Your task to perform on an android device: turn pop-ups on in chrome Image 0: 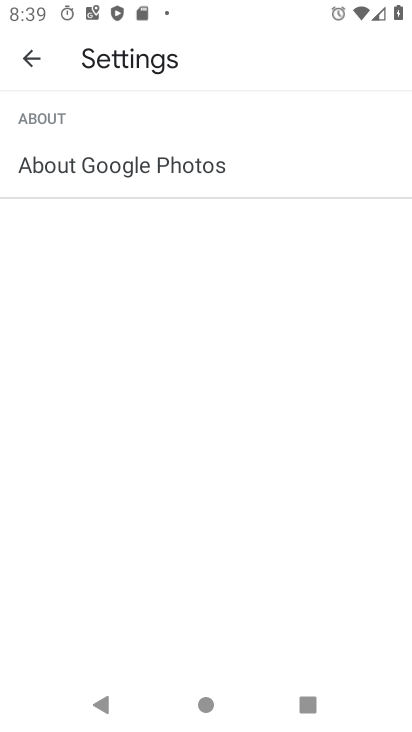
Step 0: press home button
Your task to perform on an android device: turn pop-ups on in chrome Image 1: 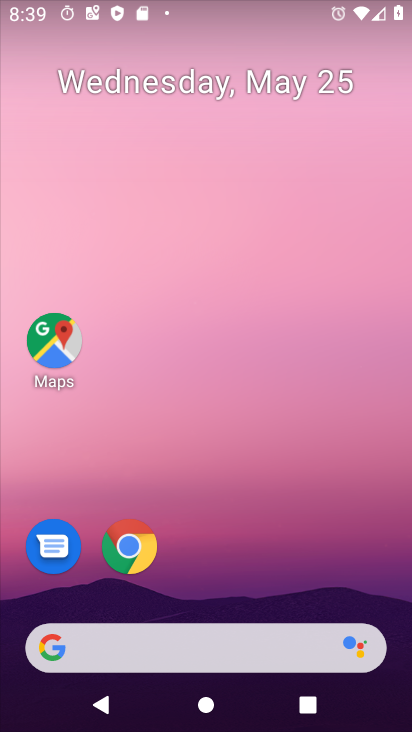
Step 1: click (137, 538)
Your task to perform on an android device: turn pop-ups on in chrome Image 2: 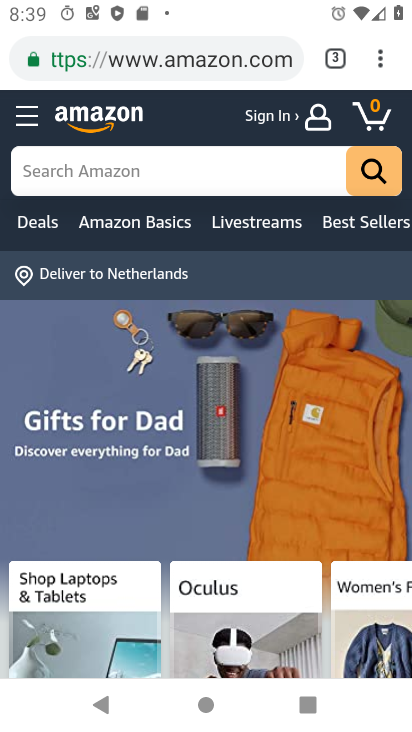
Step 2: press back button
Your task to perform on an android device: turn pop-ups on in chrome Image 3: 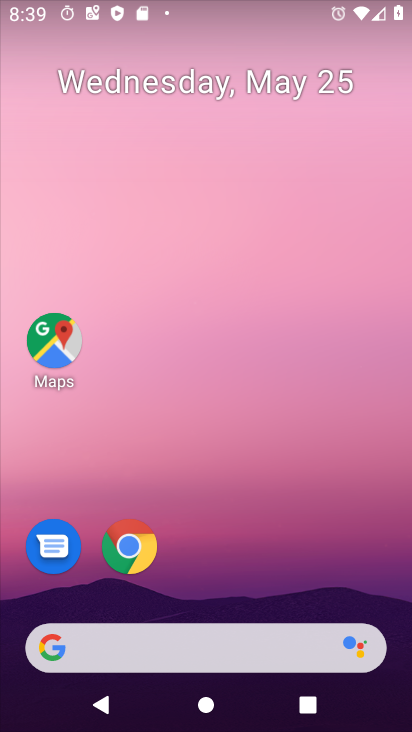
Step 3: click (121, 556)
Your task to perform on an android device: turn pop-ups on in chrome Image 4: 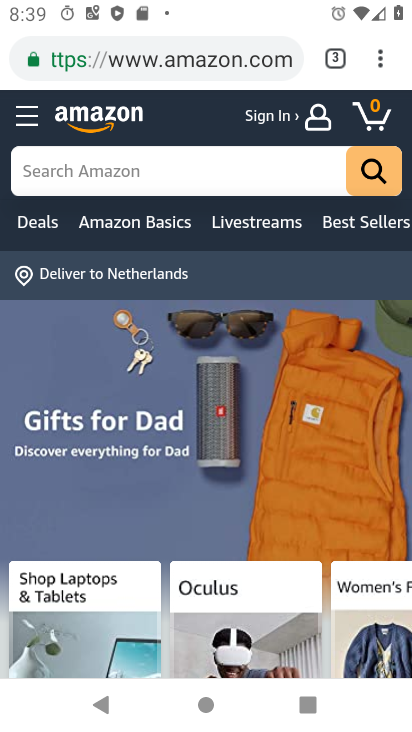
Step 4: click (162, 60)
Your task to perform on an android device: turn pop-ups on in chrome Image 5: 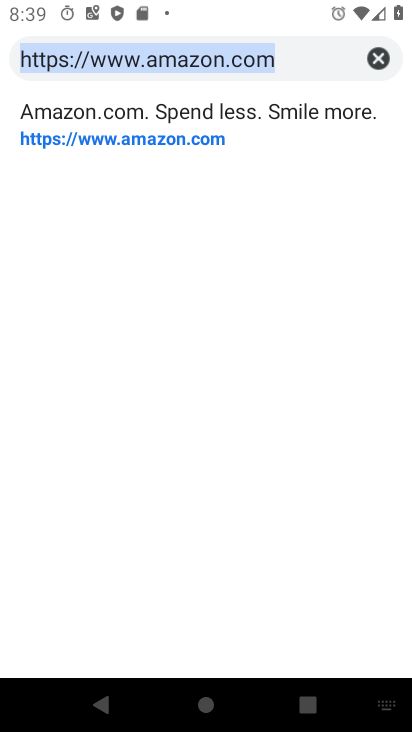
Step 5: press back button
Your task to perform on an android device: turn pop-ups on in chrome Image 6: 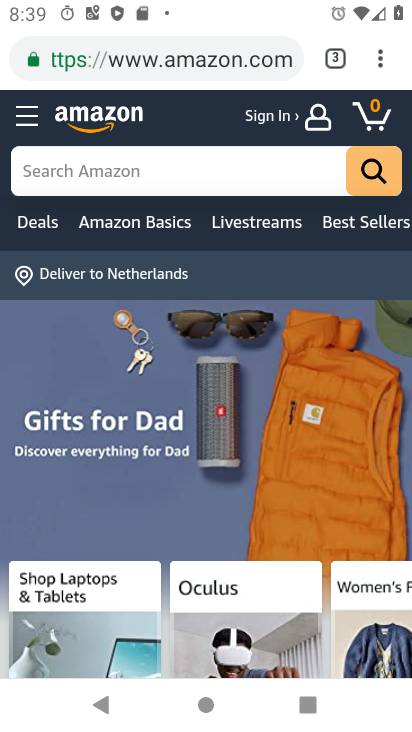
Step 6: click (323, 59)
Your task to perform on an android device: turn pop-ups on in chrome Image 7: 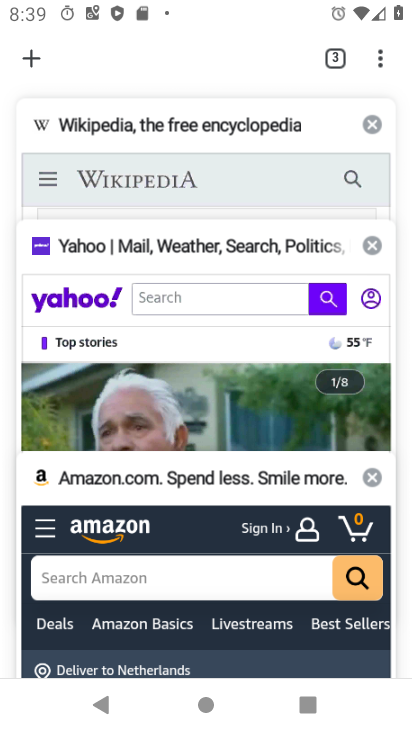
Step 7: click (370, 132)
Your task to perform on an android device: turn pop-ups on in chrome Image 8: 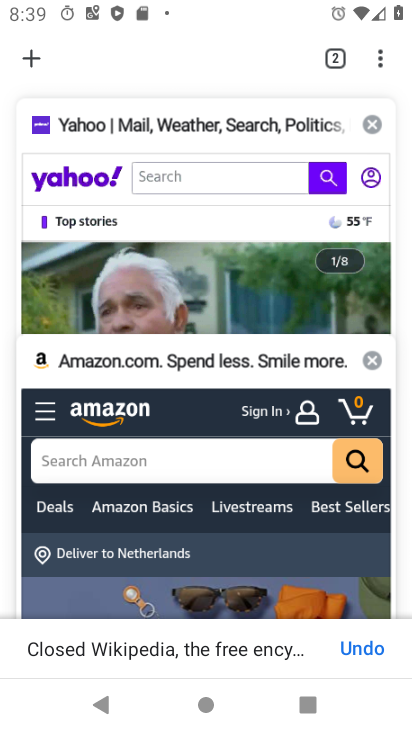
Step 8: click (370, 132)
Your task to perform on an android device: turn pop-ups on in chrome Image 9: 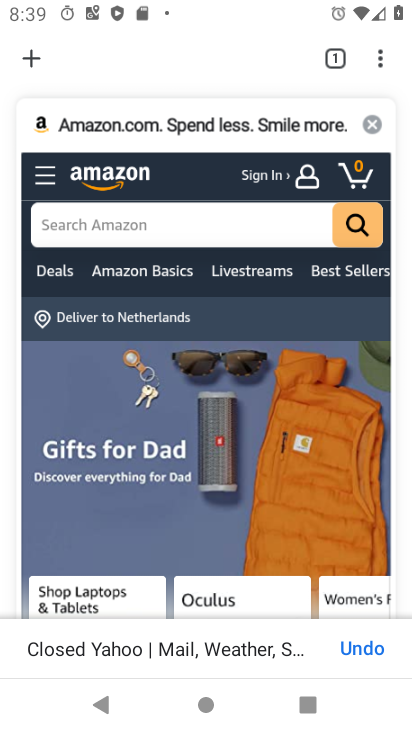
Step 9: click (248, 123)
Your task to perform on an android device: turn pop-ups on in chrome Image 10: 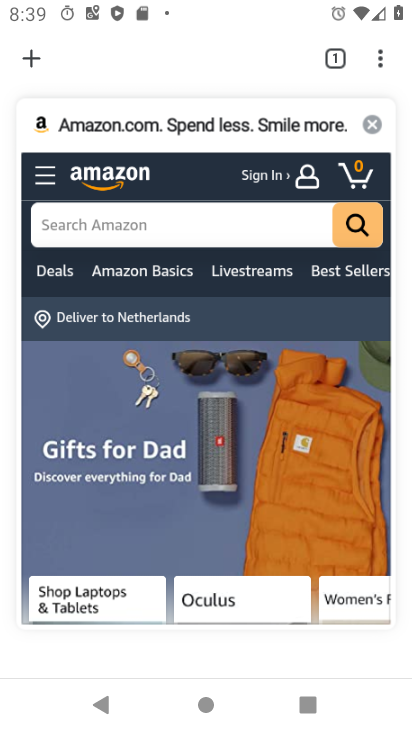
Step 10: click (229, 132)
Your task to perform on an android device: turn pop-ups on in chrome Image 11: 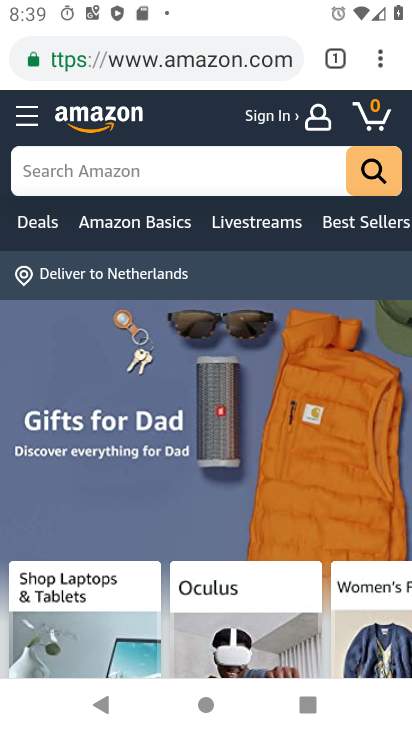
Step 11: click (205, 130)
Your task to perform on an android device: turn pop-ups on in chrome Image 12: 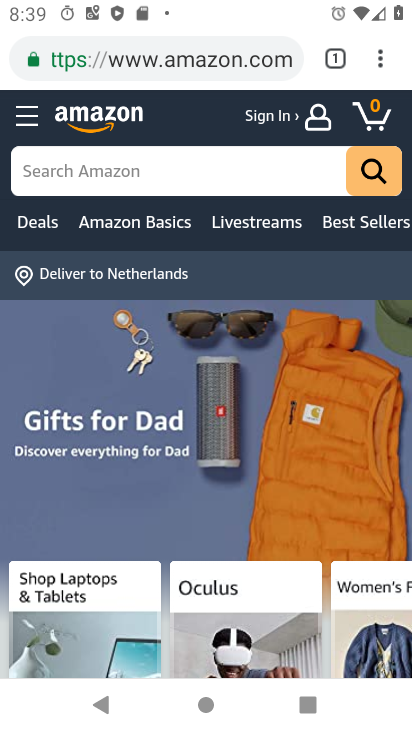
Step 12: click (157, 69)
Your task to perform on an android device: turn pop-ups on in chrome Image 13: 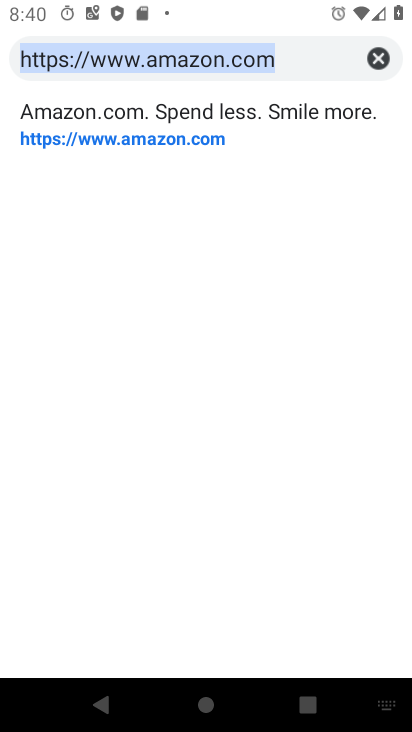
Step 13: type "www.reddit.com"
Your task to perform on an android device: turn pop-ups on in chrome Image 14: 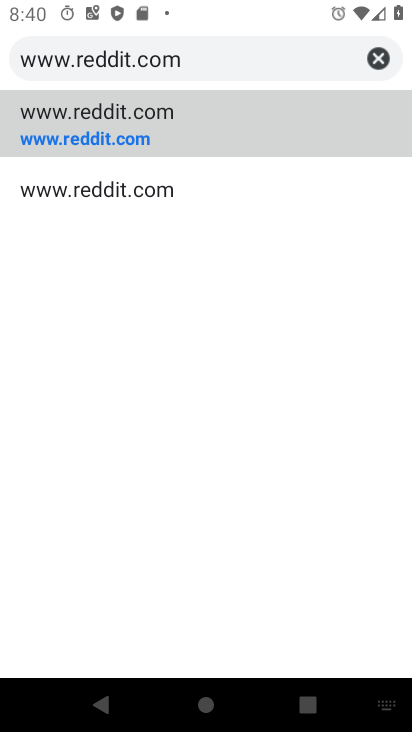
Step 14: click (82, 139)
Your task to perform on an android device: turn pop-ups on in chrome Image 15: 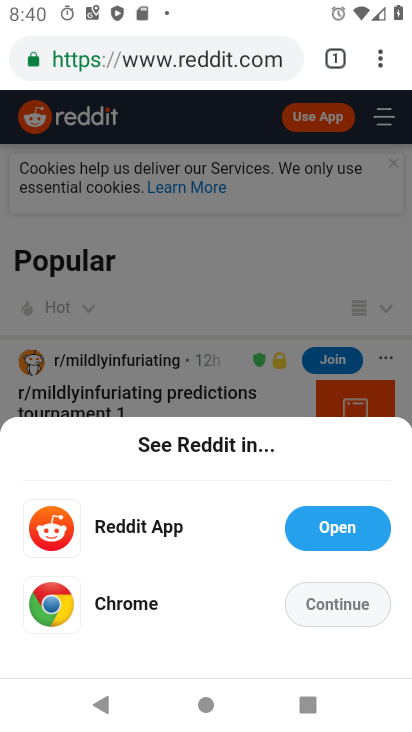
Step 15: click (332, 611)
Your task to perform on an android device: turn pop-ups on in chrome Image 16: 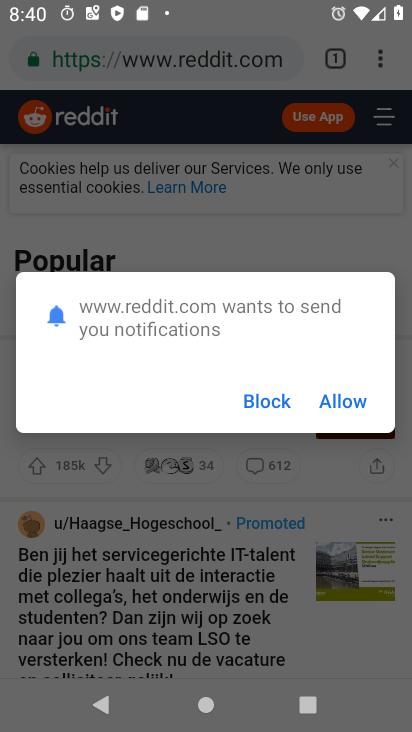
Step 16: task complete